Your task to perform on an android device: Clear the shopping cart on costco.com. Add razer blackwidow to the cart on costco.com, then select checkout. Image 0: 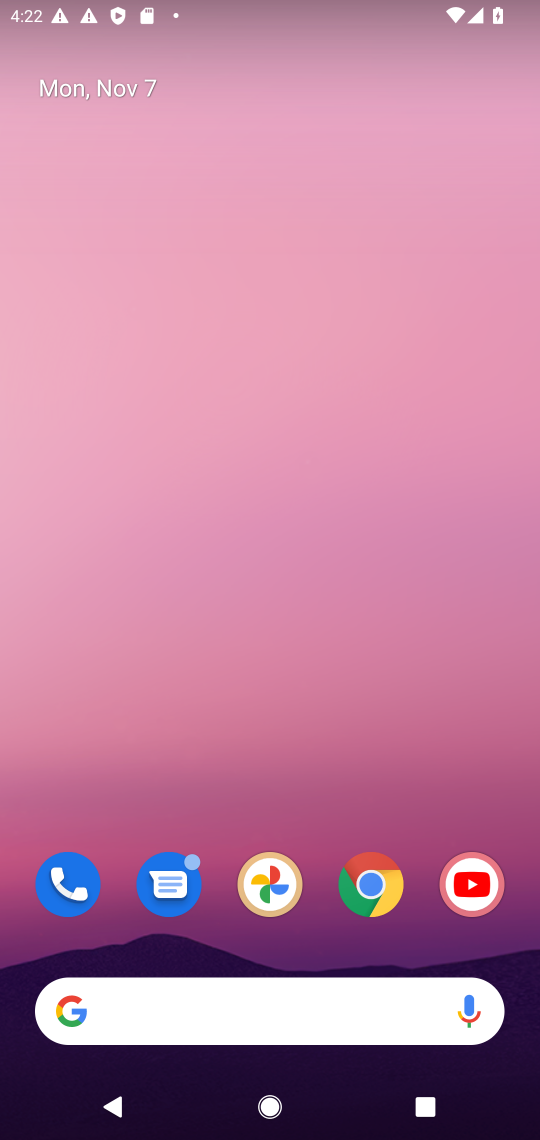
Step 0: drag from (316, 960) to (259, 75)
Your task to perform on an android device: Clear the shopping cart on costco.com. Add razer blackwidow to the cart on costco.com, then select checkout. Image 1: 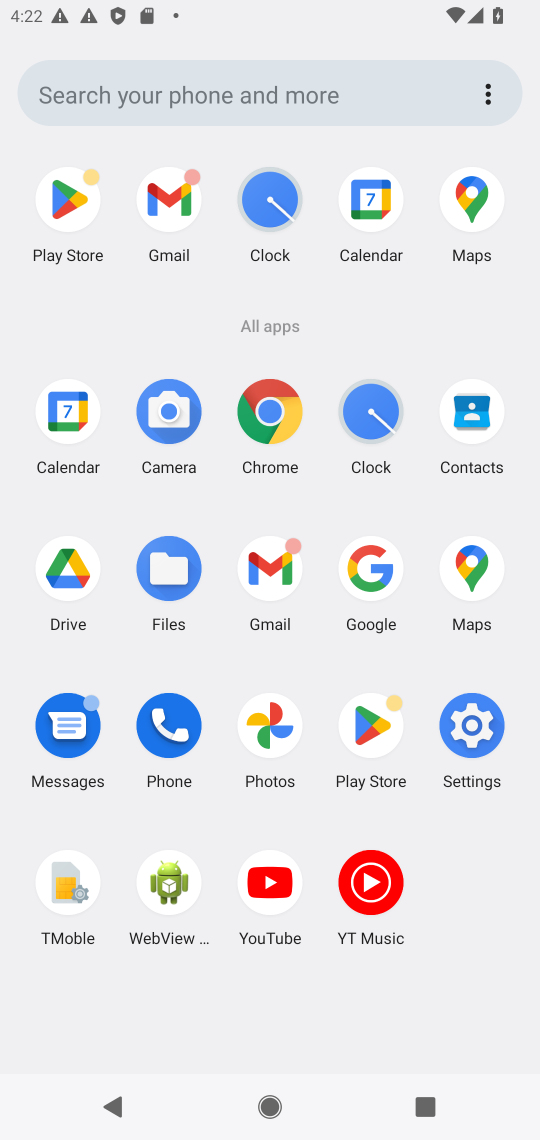
Step 1: click (275, 415)
Your task to perform on an android device: Clear the shopping cart on costco.com. Add razer blackwidow to the cart on costco.com, then select checkout. Image 2: 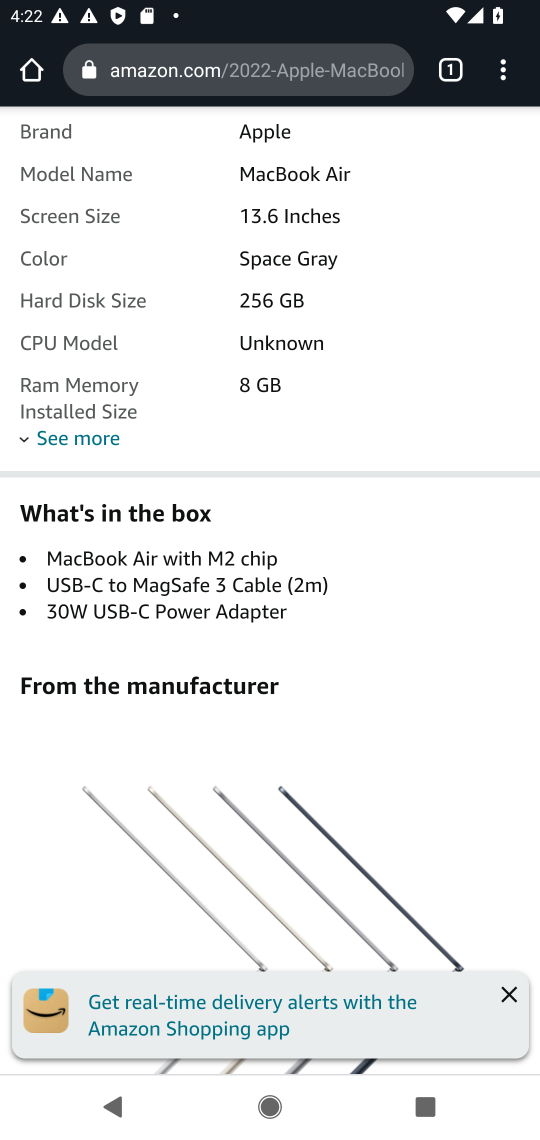
Step 2: click (241, 67)
Your task to perform on an android device: Clear the shopping cart on costco.com. Add razer blackwidow to the cart on costco.com, then select checkout. Image 3: 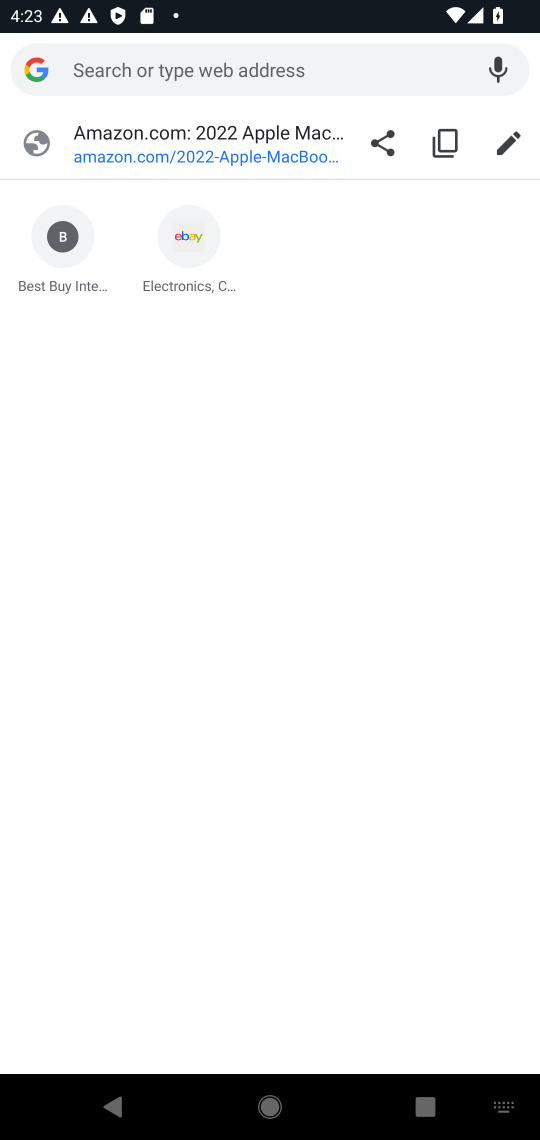
Step 3: type "costco.com"
Your task to perform on an android device: Clear the shopping cart on costco.com. Add razer blackwidow to the cart on costco.com, then select checkout. Image 4: 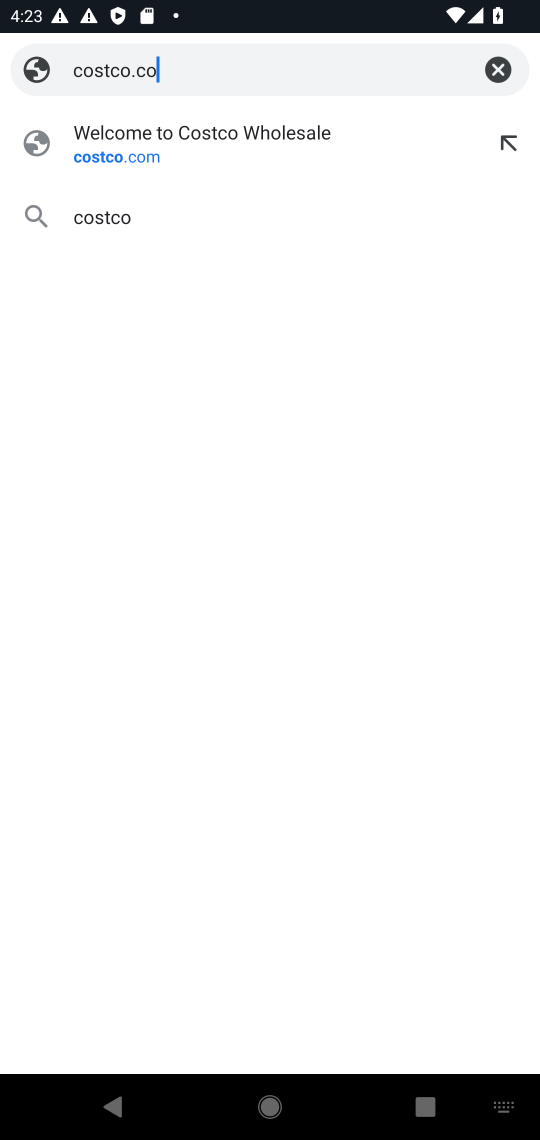
Step 4: press enter
Your task to perform on an android device: Clear the shopping cart on costco.com. Add razer blackwidow to the cart on costco.com, then select checkout. Image 5: 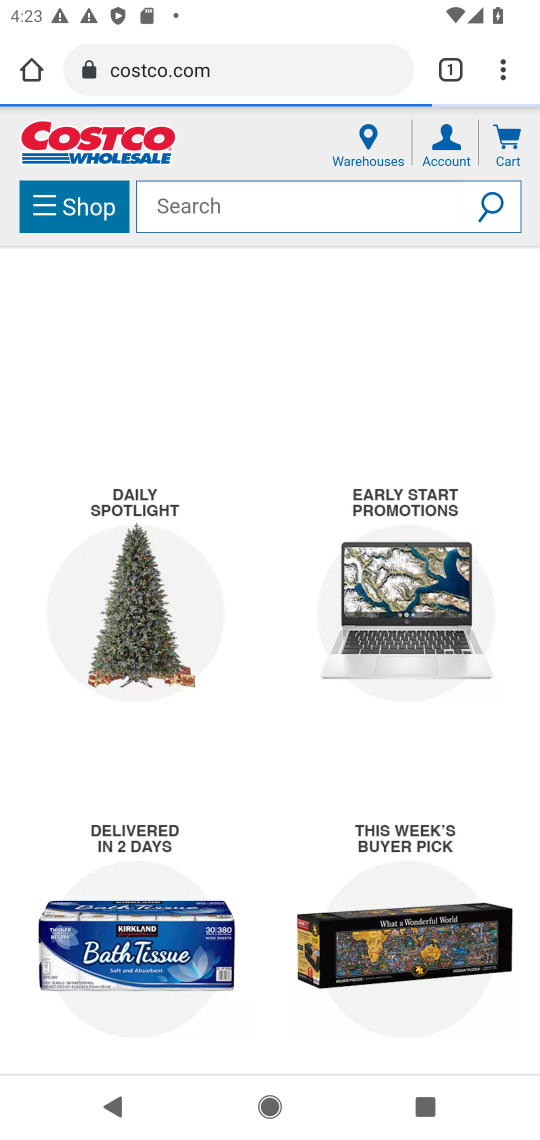
Step 5: click (511, 135)
Your task to perform on an android device: Clear the shopping cart on costco.com. Add razer blackwidow to the cart on costco.com, then select checkout. Image 6: 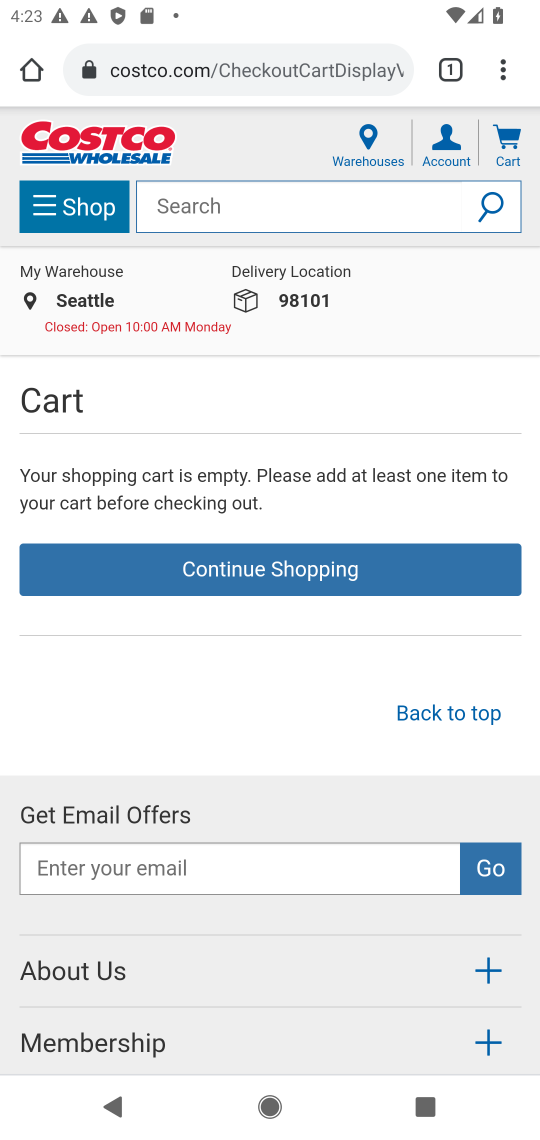
Step 6: click (327, 193)
Your task to perform on an android device: Clear the shopping cart on costco.com. Add razer blackwidow to the cart on costco.com, then select checkout. Image 7: 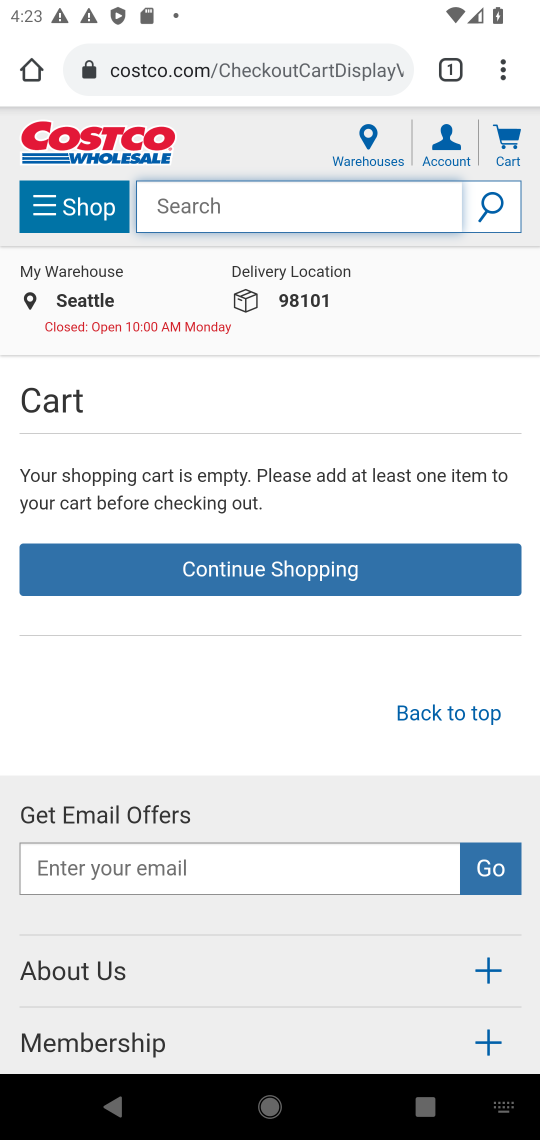
Step 7: type "razer blackwindow"
Your task to perform on an android device: Clear the shopping cart on costco.com. Add razer blackwidow to the cart on costco.com, then select checkout. Image 8: 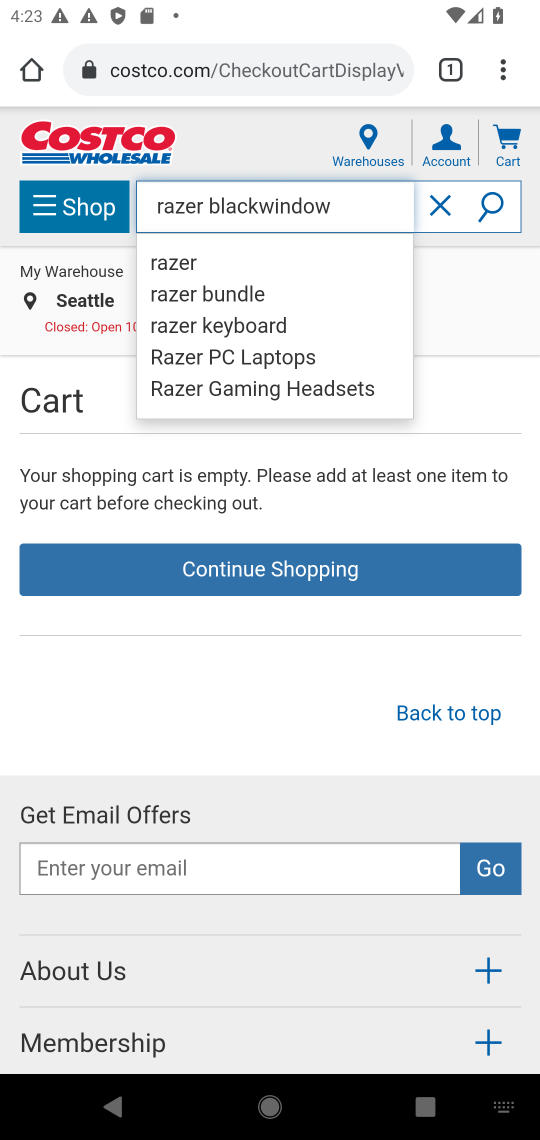
Step 8: press enter
Your task to perform on an android device: Clear the shopping cart on costco.com. Add razer blackwidow to the cart on costco.com, then select checkout. Image 9: 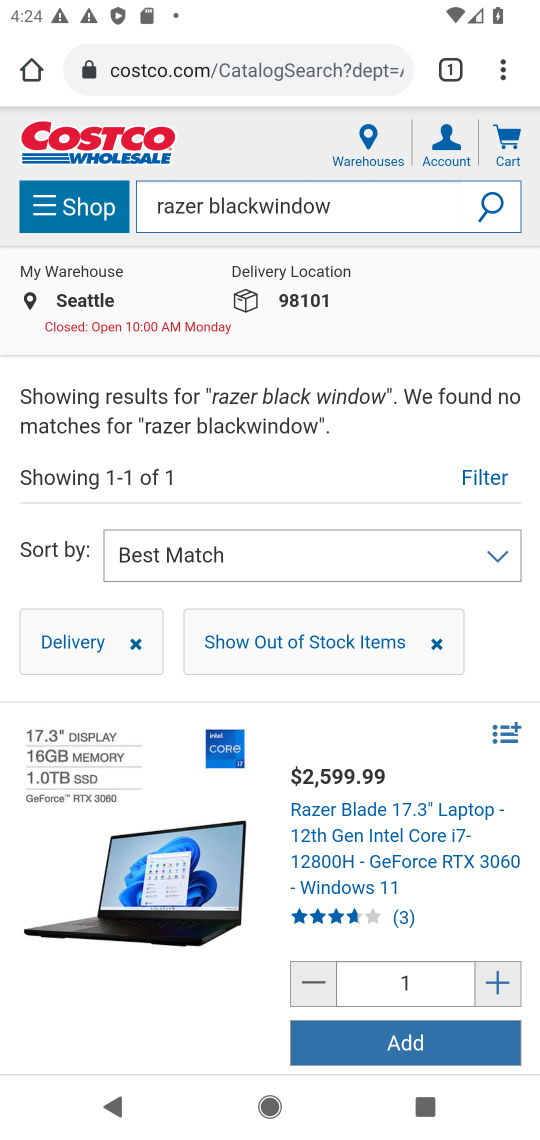
Step 9: task complete